Your task to perform on an android device: turn off picture-in-picture Image 0: 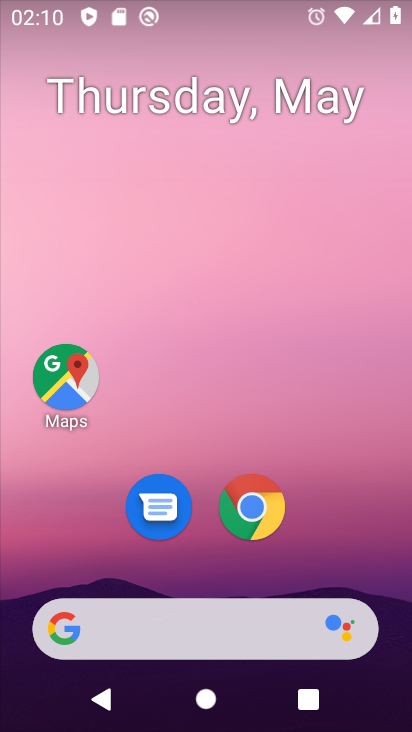
Step 0: drag from (394, 551) to (311, 3)
Your task to perform on an android device: turn off picture-in-picture Image 1: 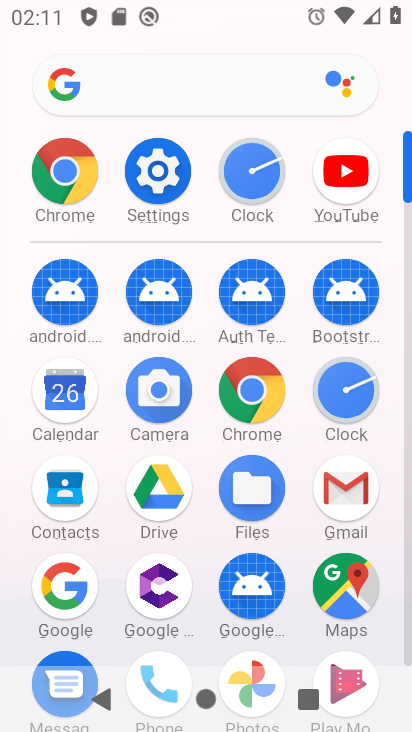
Step 1: click (150, 179)
Your task to perform on an android device: turn off picture-in-picture Image 2: 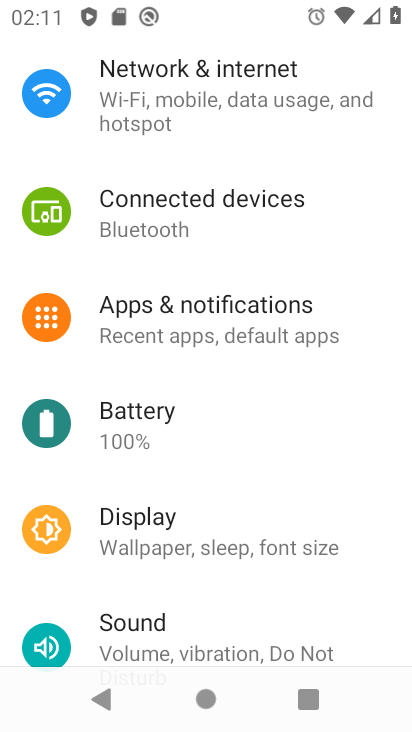
Step 2: click (254, 541)
Your task to perform on an android device: turn off picture-in-picture Image 3: 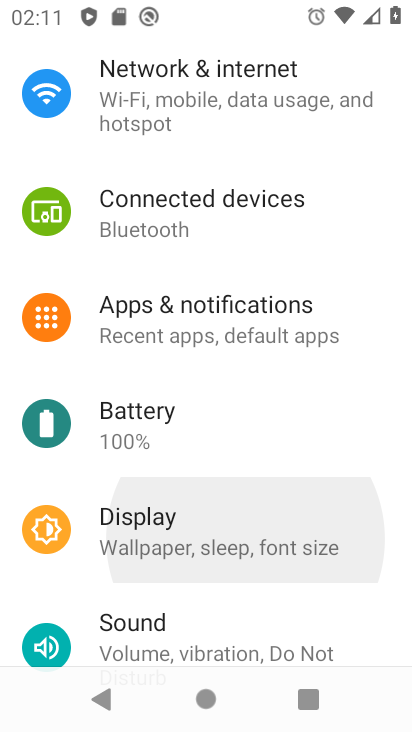
Step 3: drag from (254, 541) to (230, 440)
Your task to perform on an android device: turn off picture-in-picture Image 4: 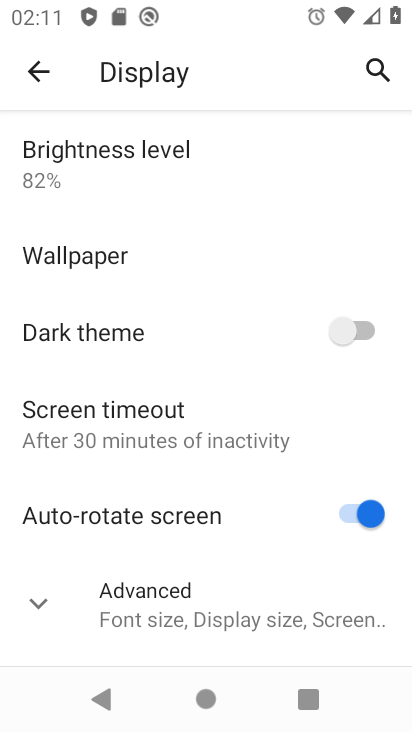
Step 4: click (35, 90)
Your task to perform on an android device: turn off picture-in-picture Image 5: 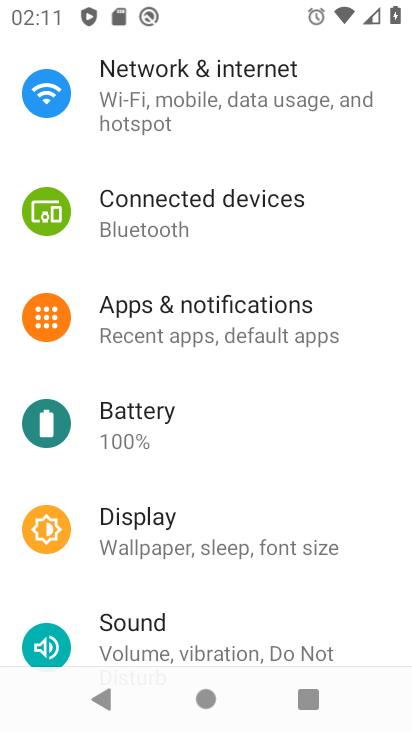
Step 5: click (124, 310)
Your task to perform on an android device: turn off picture-in-picture Image 6: 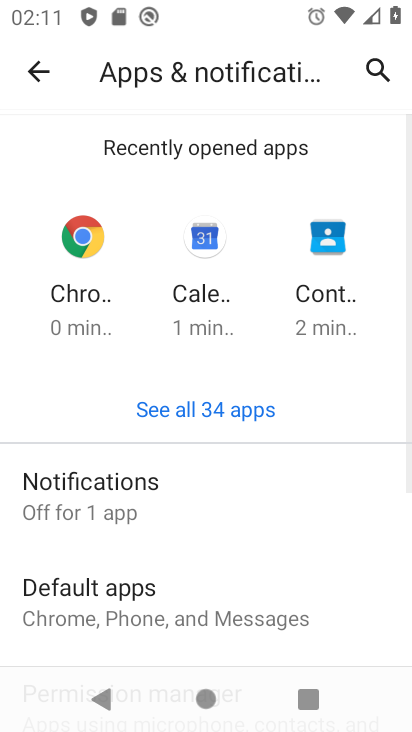
Step 6: drag from (252, 599) to (284, 259)
Your task to perform on an android device: turn off picture-in-picture Image 7: 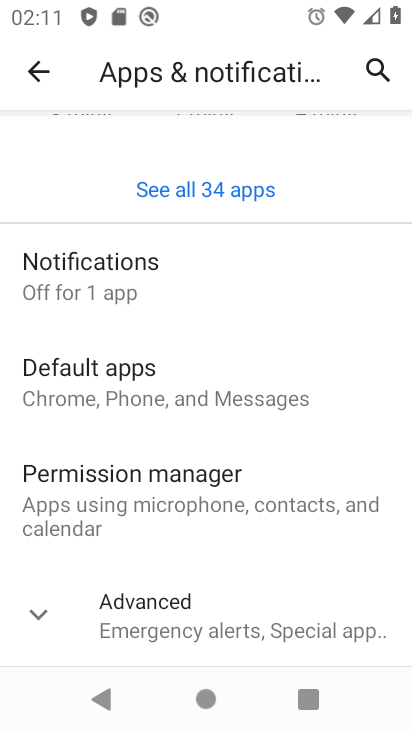
Step 7: click (244, 649)
Your task to perform on an android device: turn off picture-in-picture Image 8: 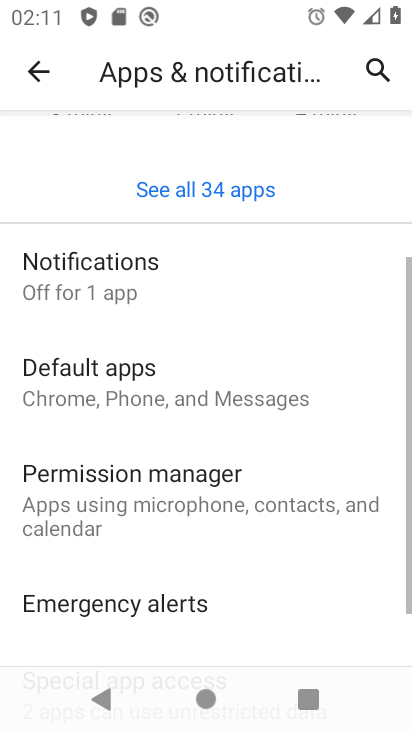
Step 8: drag from (246, 595) to (331, 65)
Your task to perform on an android device: turn off picture-in-picture Image 9: 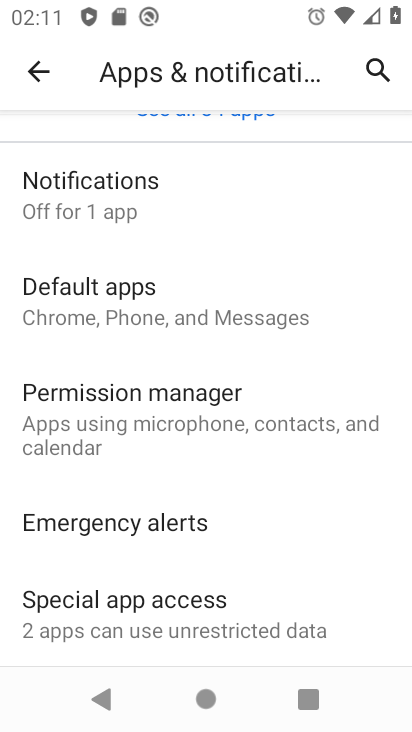
Step 9: click (279, 588)
Your task to perform on an android device: turn off picture-in-picture Image 10: 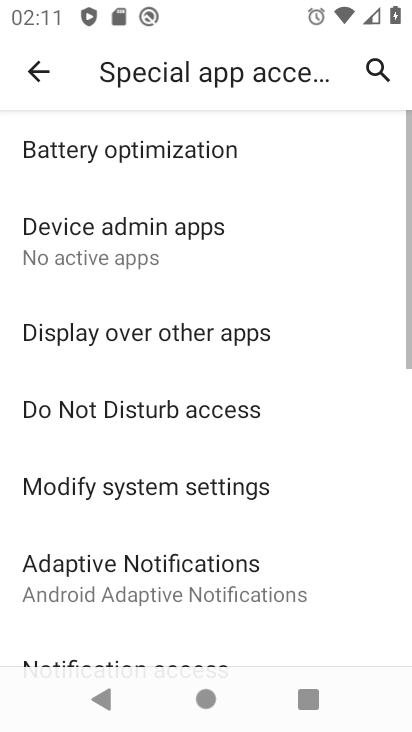
Step 10: click (279, 580)
Your task to perform on an android device: turn off picture-in-picture Image 11: 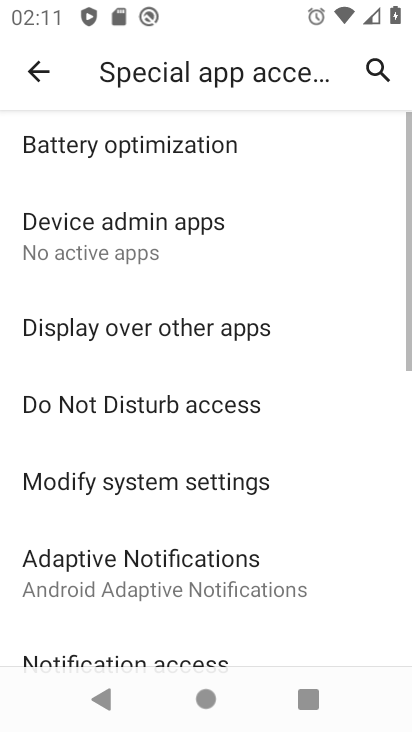
Step 11: drag from (279, 548) to (344, 310)
Your task to perform on an android device: turn off picture-in-picture Image 12: 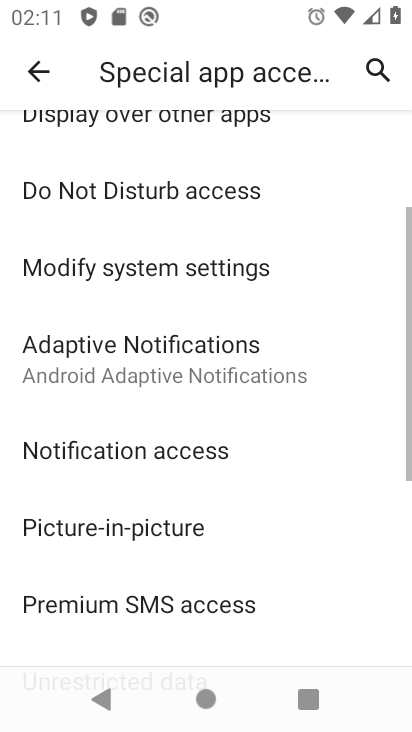
Step 12: click (344, 310)
Your task to perform on an android device: turn off picture-in-picture Image 13: 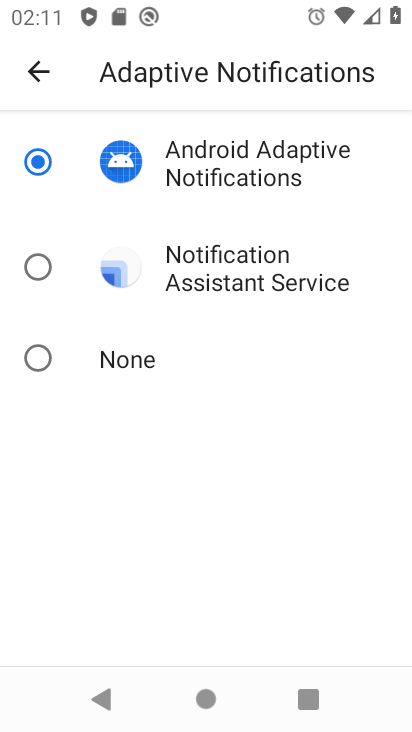
Step 13: click (21, 60)
Your task to perform on an android device: turn off picture-in-picture Image 14: 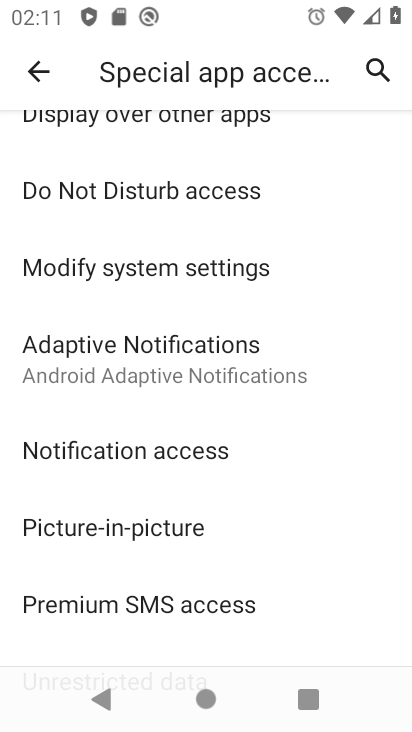
Step 14: click (110, 534)
Your task to perform on an android device: turn off picture-in-picture Image 15: 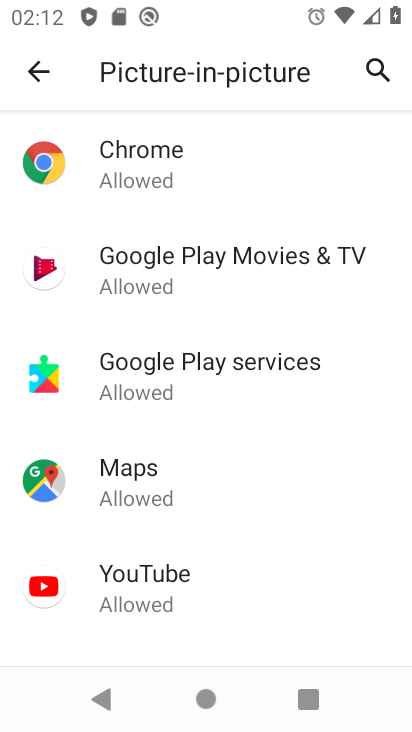
Step 15: task complete